Your task to perform on an android device: open the mobile data screen to see how much data has been used Image 0: 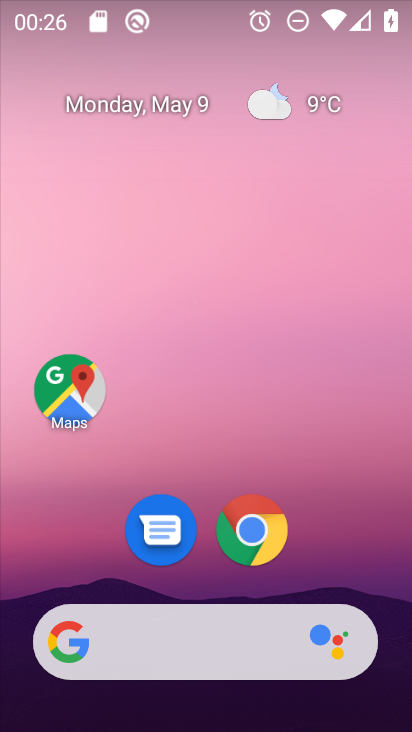
Step 0: drag from (224, 588) to (270, 198)
Your task to perform on an android device: open the mobile data screen to see how much data has been used Image 1: 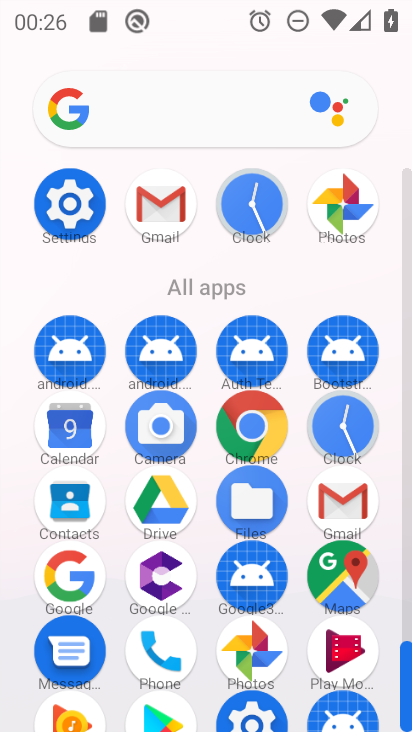
Step 1: click (46, 225)
Your task to perform on an android device: open the mobile data screen to see how much data has been used Image 2: 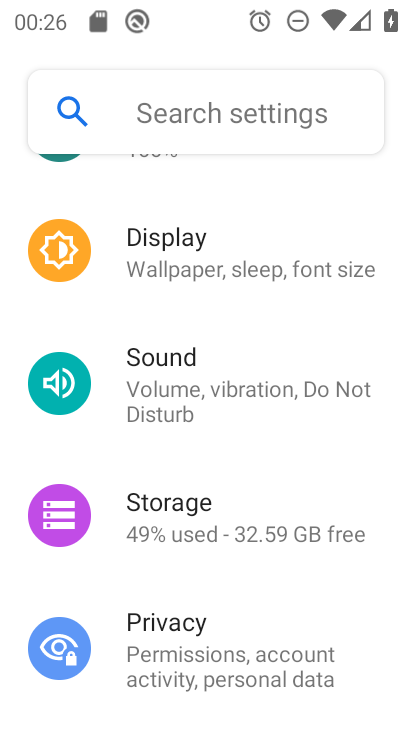
Step 2: drag from (232, 253) to (205, 690)
Your task to perform on an android device: open the mobile data screen to see how much data has been used Image 3: 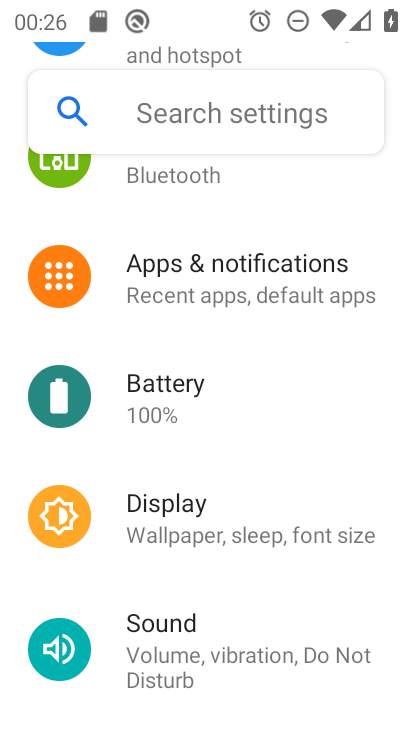
Step 3: drag from (272, 242) to (293, 700)
Your task to perform on an android device: open the mobile data screen to see how much data has been used Image 4: 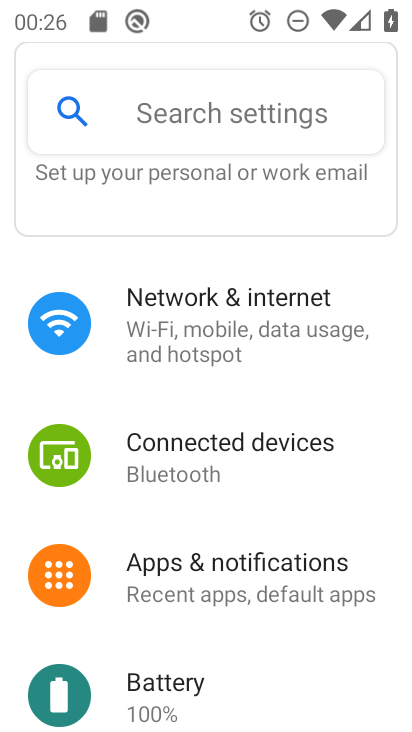
Step 4: click (252, 363)
Your task to perform on an android device: open the mobile data screen to see how much data has been used Image 5: 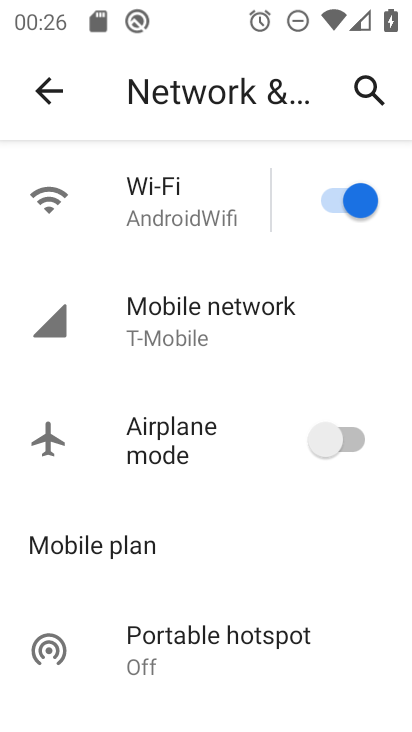
Step 5: click (228, 305)
Your task to perform on an android device: open the mobile data screen to see how much data has been used Image 6: 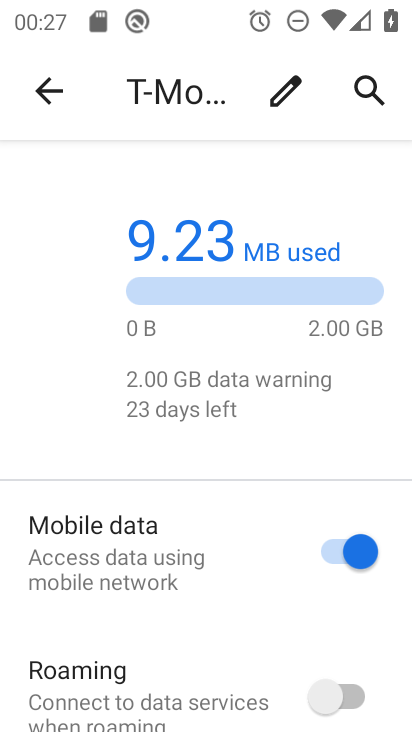
Step 6: task complete